Your task to perform on an android device: turn off location history Image 0: 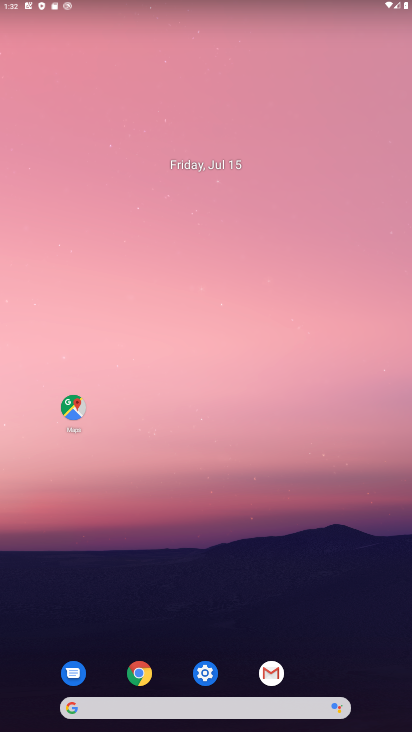
Step 0: press home button
Your task to perform on an android device: turn off location history Image 1: 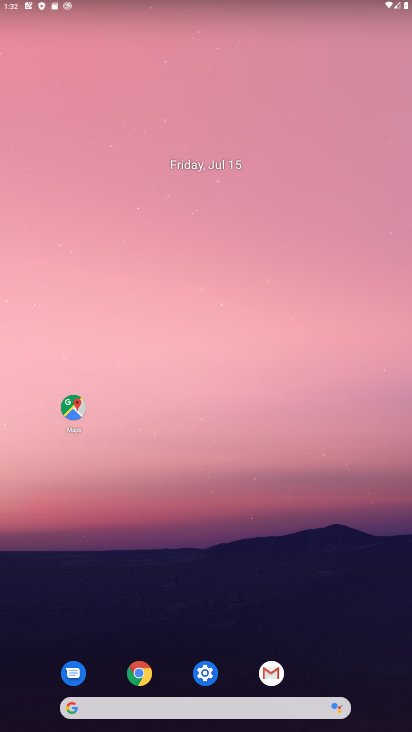
Step 1: click (200, 670)
Your task to perform on an android device: turn off location history Image 2: 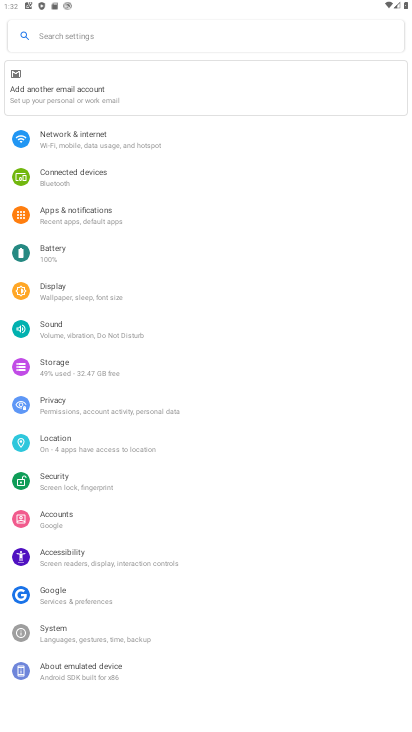
Step 2: click (78, 442)
Your task to perform on an android device: turn off location history Image 3: 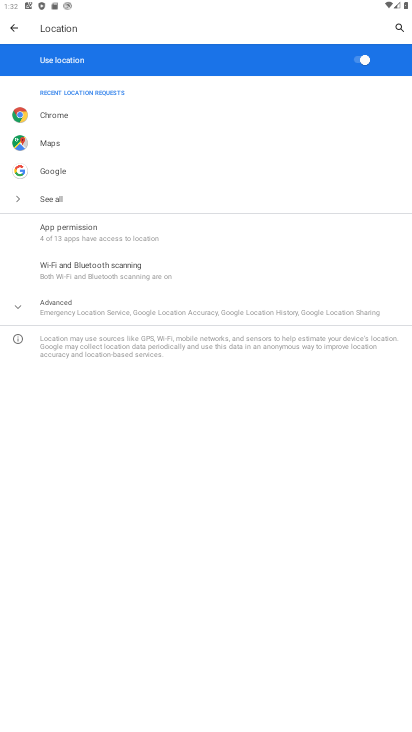
Step 3: click (20, 308)
Your task to perform on an android device: turn off location history Image 4: 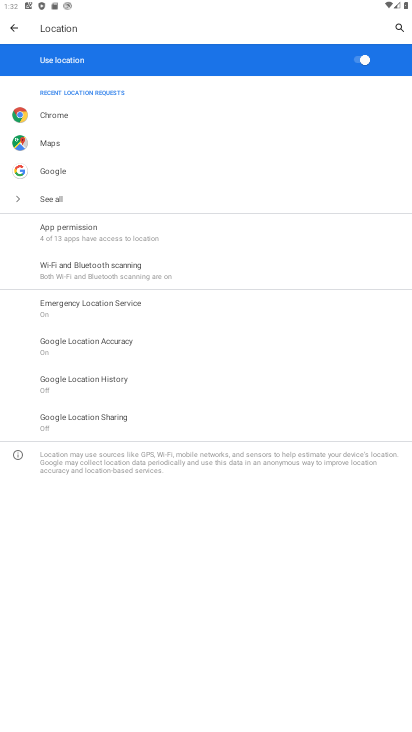
Step 4: click (101, 383)
Your task to perform on an android device: turn off location history Image 5: 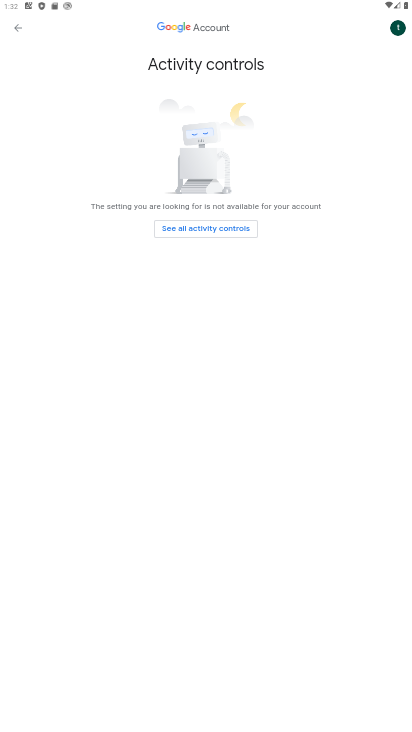
Step 5: click (209, 230)
Your task to perform on an android device: turn off location history Image 6: 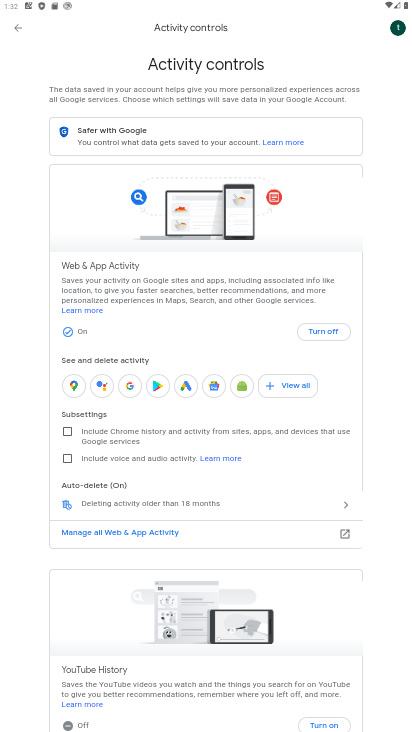
Step 6: task complete